Your task to perform on an android device: View the shopping cart on ebay.com. Search for jbl charge 4 on ebay.com, select the first entry, and add it to the cart. Image 0: 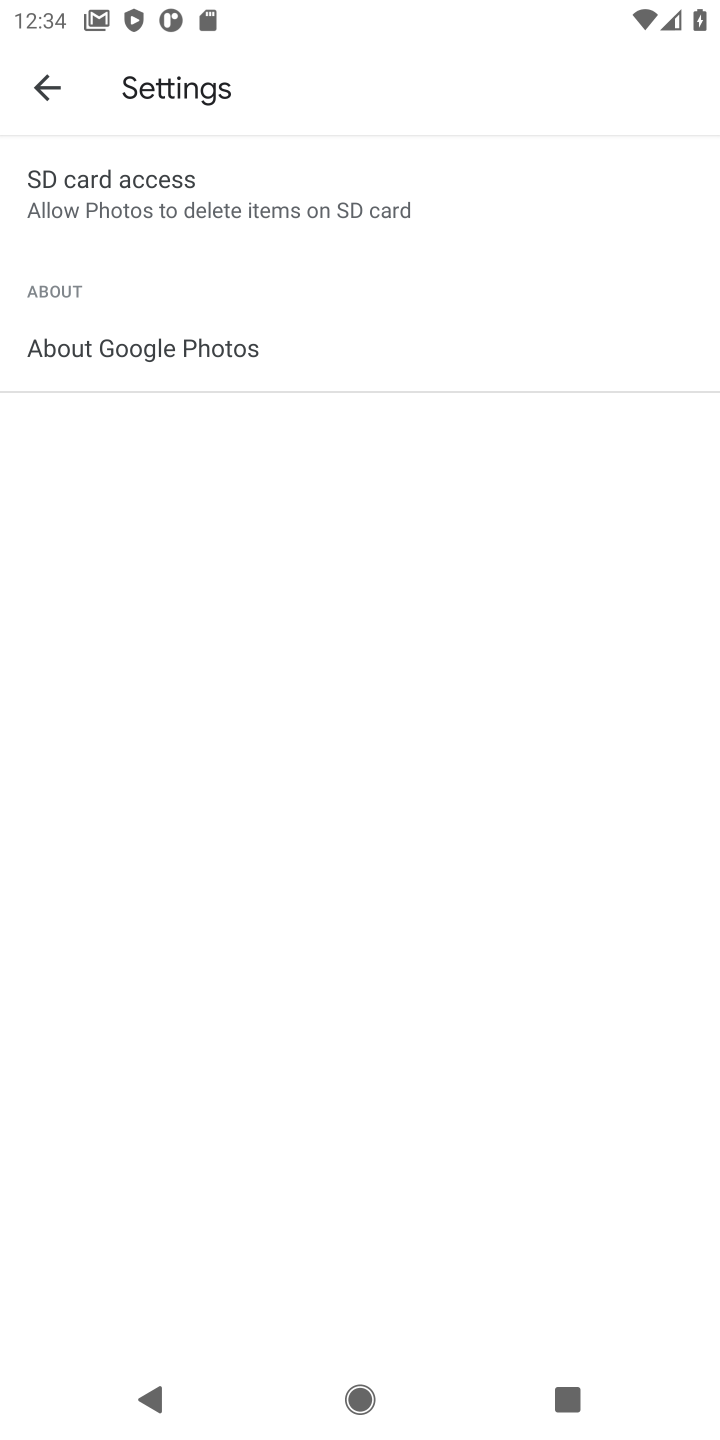
Step 0: press home button
Your task to perform on an android device: View the shopping cart on ebay.com. Search for jbl charge 4 on ebay.com, select the first entry, and add it to the cart. Image 1: 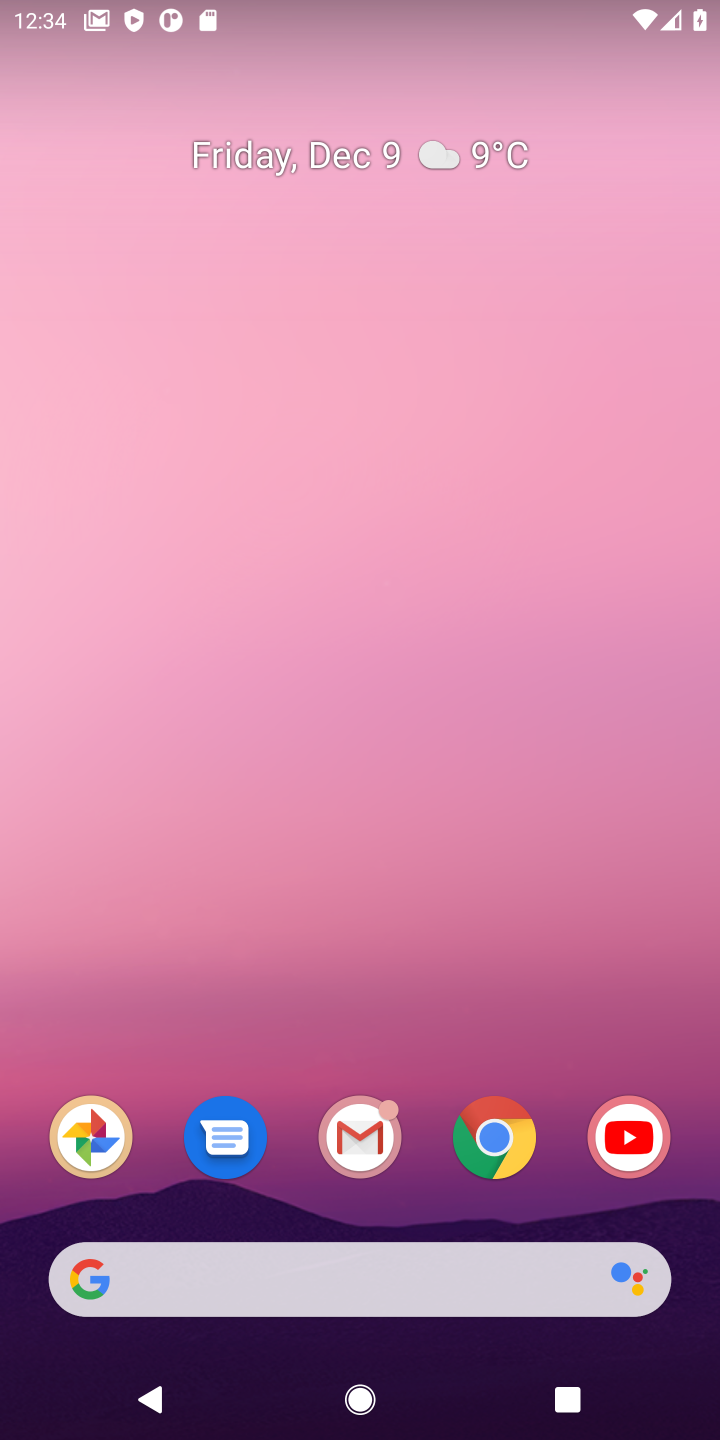
Step 1: click (247, 1266)
Your task to perform on an android device: View the shopping cart on ebay.com. Search for jbl charge 4 on ebay.com, select the first entry, and add it to the cart. Image 2: 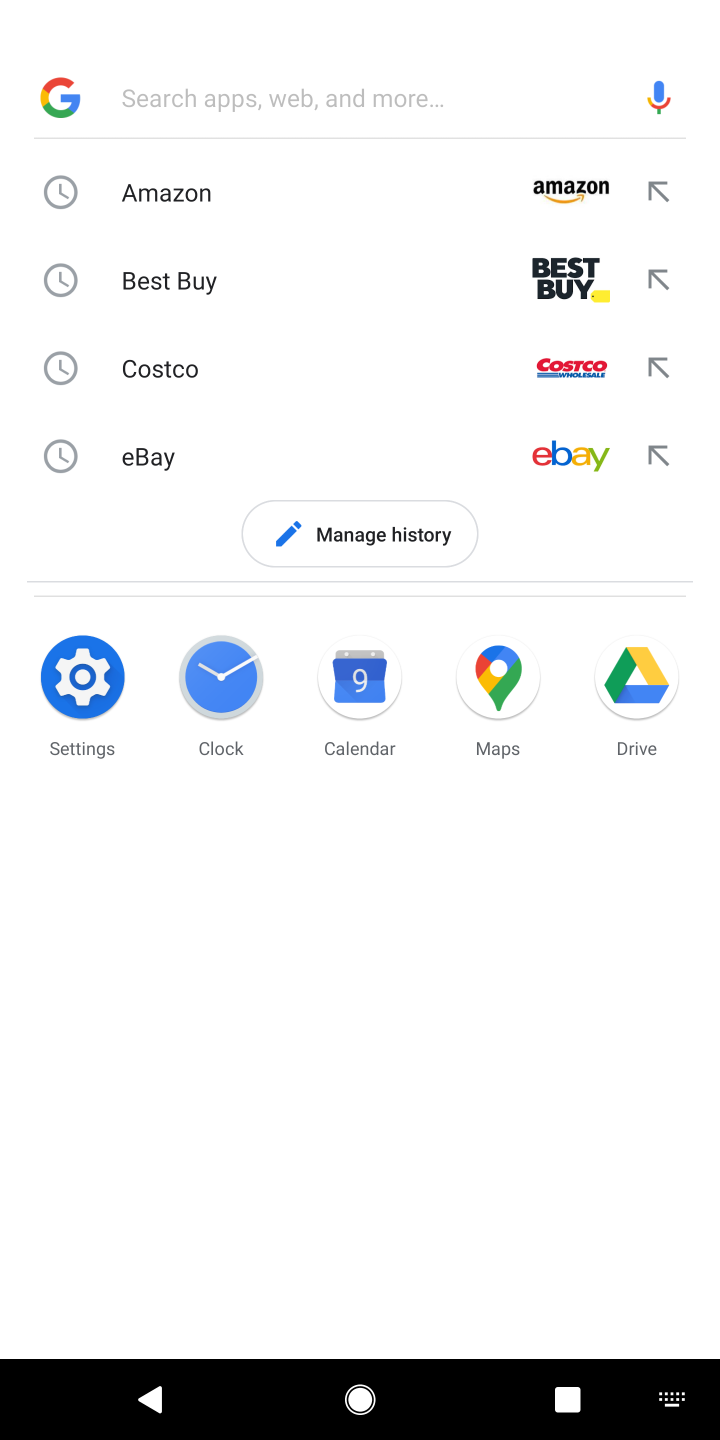
Step 2: type "ebay.com"
Your task to perform on an android device: View the shopping cart on ebay.com. Search for jbl charge 4 on ebay.com, select the first entry, and add it to the cart. Image 3: 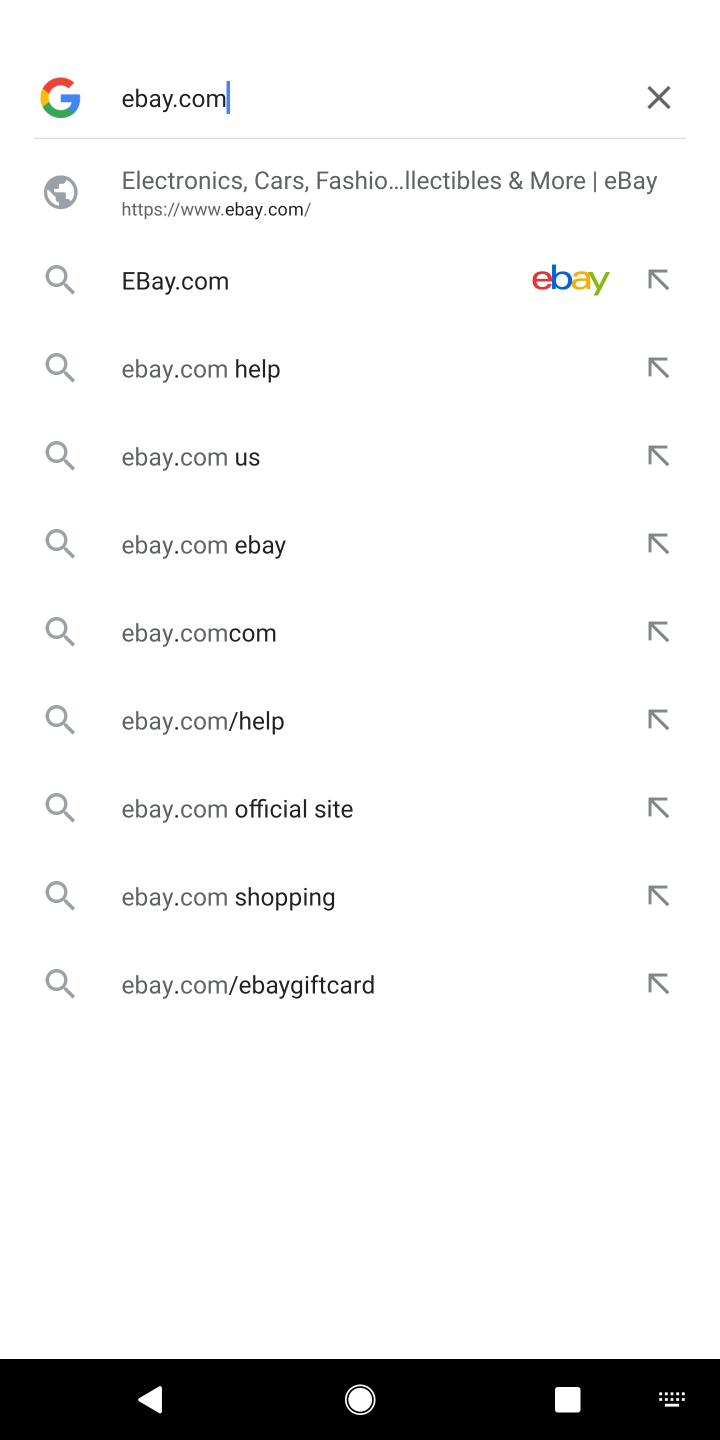
Step 3: click (256, 232)
Your task to perform on an android device: View the shopping cart on ebay.com. Search for jbl charge 4 on ebay.com, select the first entry, and add it to the cart. Image 4: 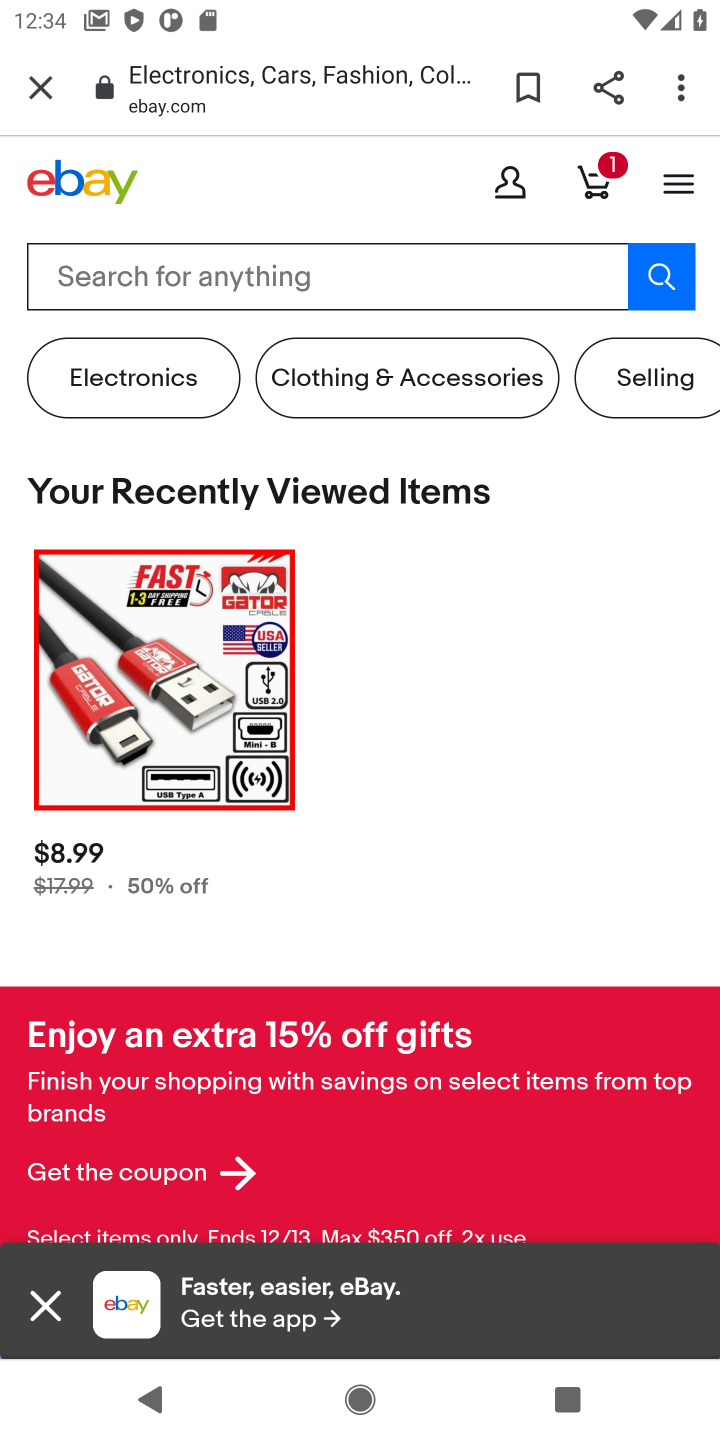
Step 4: click (218, 291)
Your task to perform on an android device: View the shopping cart on ebay.com. Search for jbl charge 4 on ebay.com, select the first entry, and add it to the cart. Image 5: 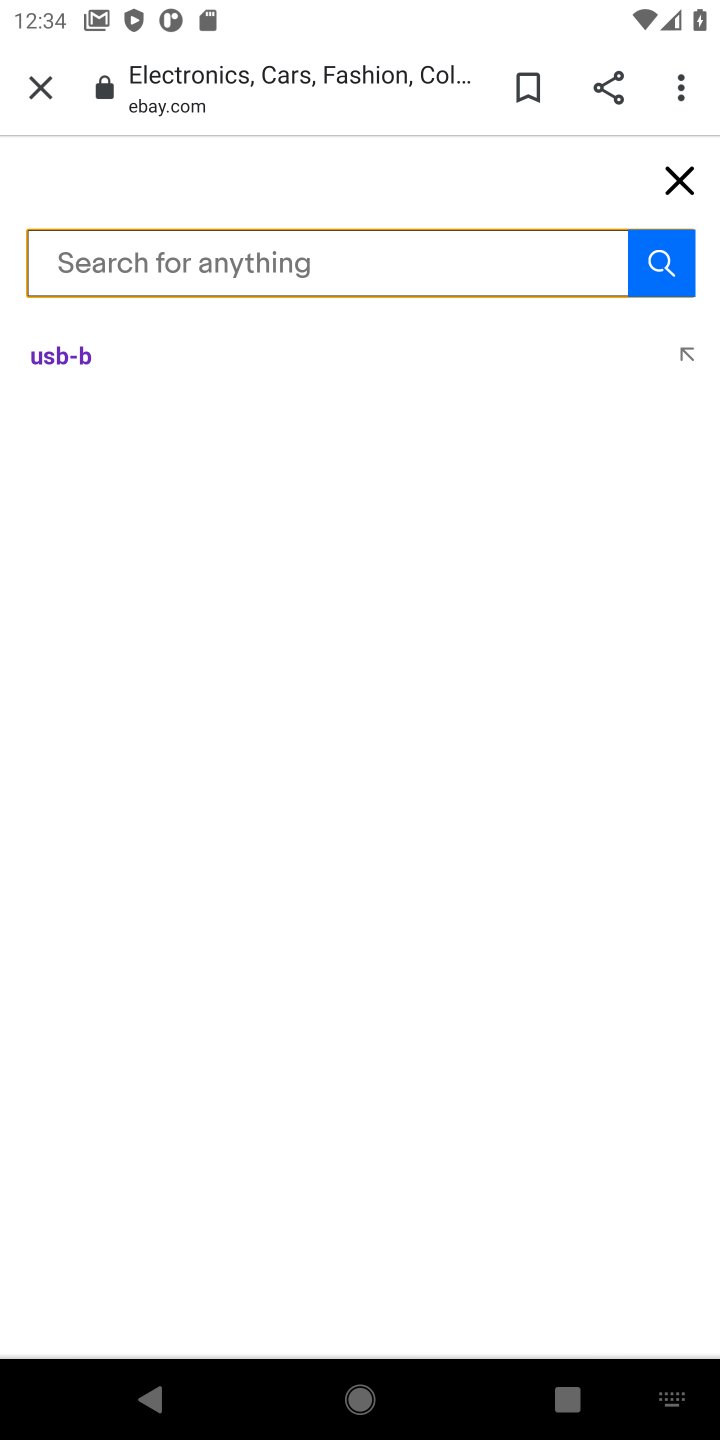
Step 5: type "jbl charge 4"
Your task to perform on an android device: View the shopping cart on ebay.com. Search for jbl charge 4 on ebay.com, select the first entry, and add it to the cart. Image 6: 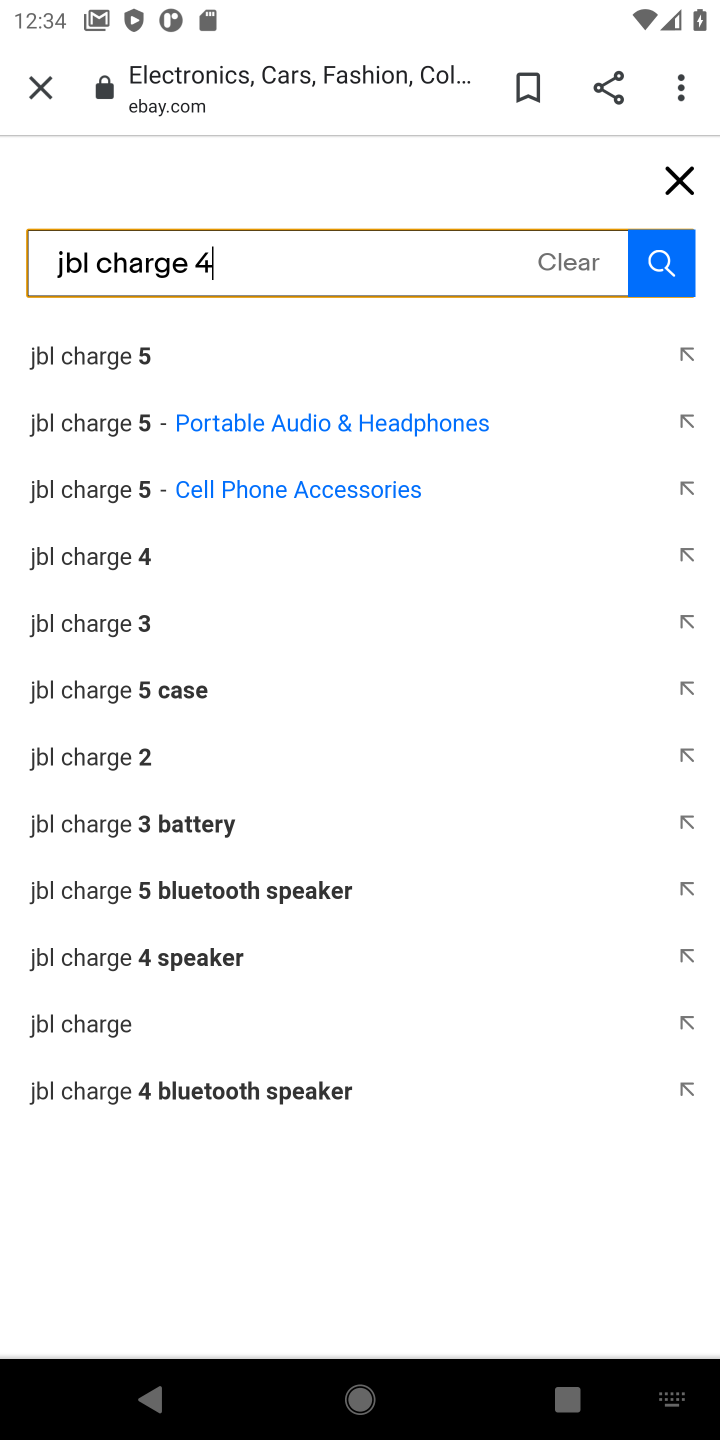
Step 6: click (673, 273)
Your task to perform on an android device: View the shopping cart on ebay.com. Search for jbl charge 4 on ebay.com, select the first entry, and add it to the cart. Image 7: 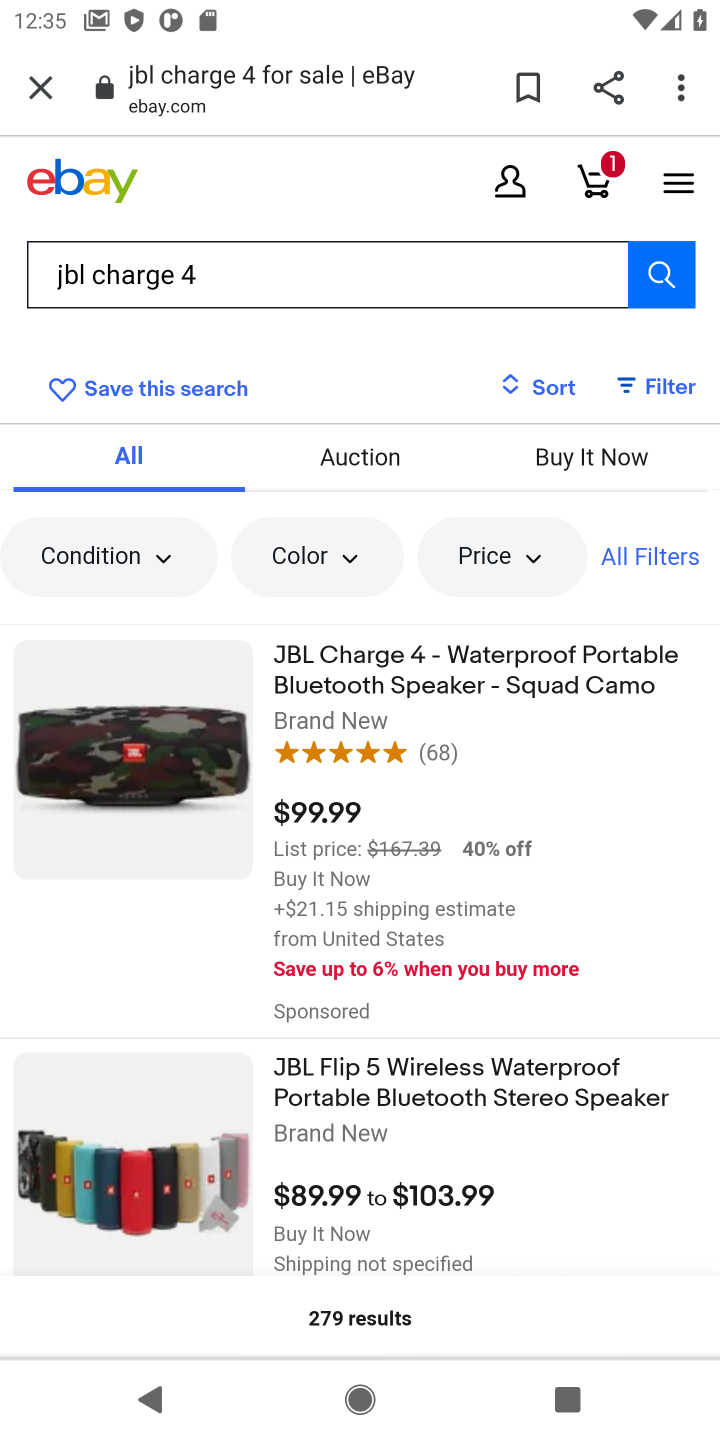
Step 7: click (420, 683)
Your task to perform on an android device: View the shopping cart on ebay.com. Search for jbl charge 4 on ebay.com, select the first entry, and add it to the cart. Image 8: 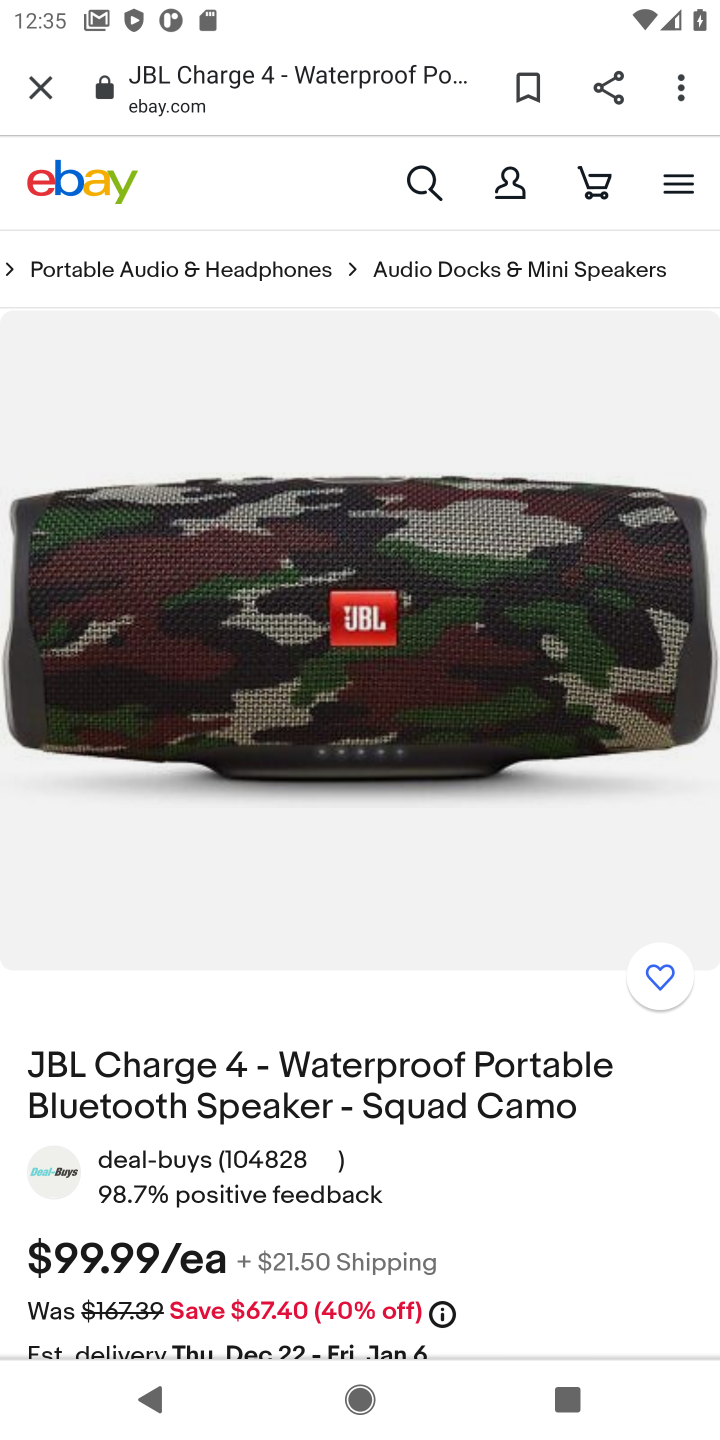
Step 8: drag from (326, 1148) to (285, 499)
Your task to perform on an android device: View the shopping cart on ebay.com. Search for jbl charge 4 on ebay.com, select the first entry, and add it to the cart. Image 9: 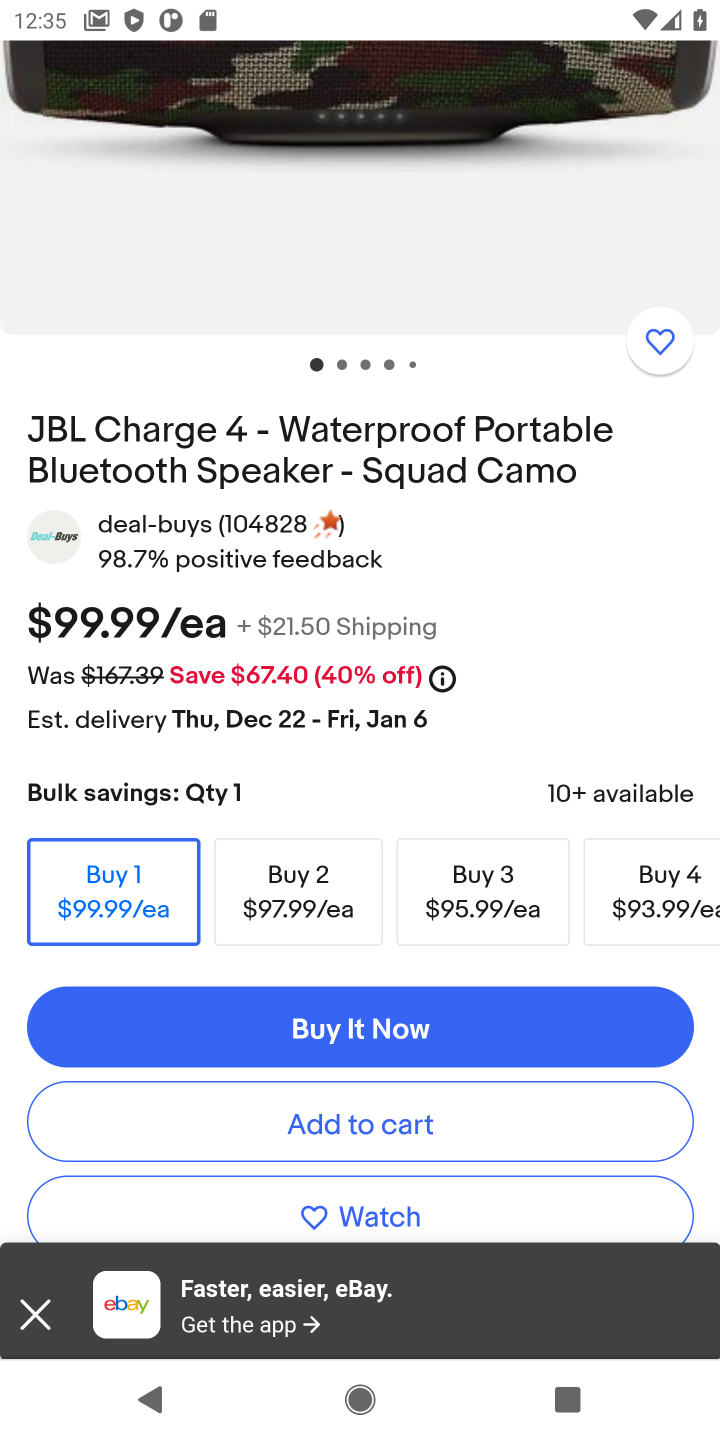
Step 9: click (375, 1135)
Your task to perform on an android device: View the shopping cart on ebay.com. Search for jbl charge 4 on ebay.com, select the first entry, and add it to the cart. Image 10: 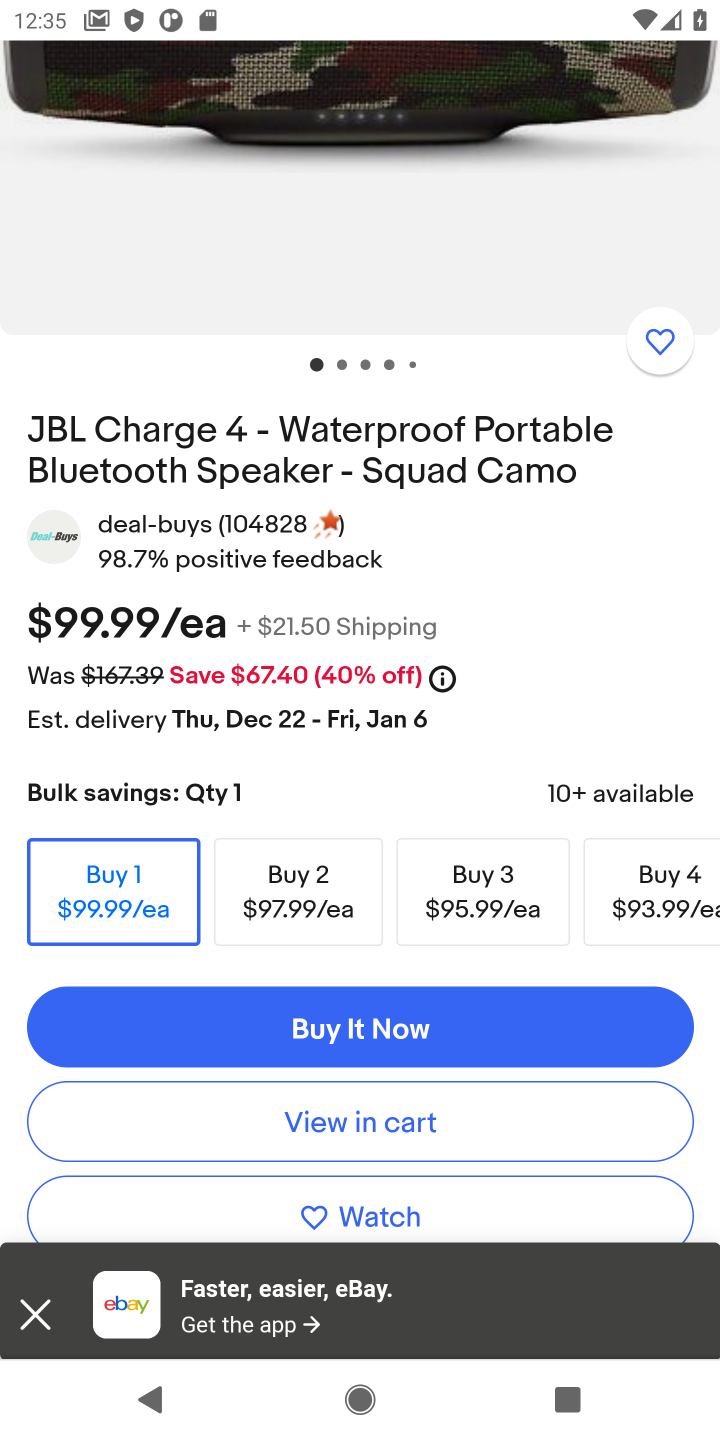
Step 10: task complete